Your task to perform on an android device: open wifi settings Image 0: 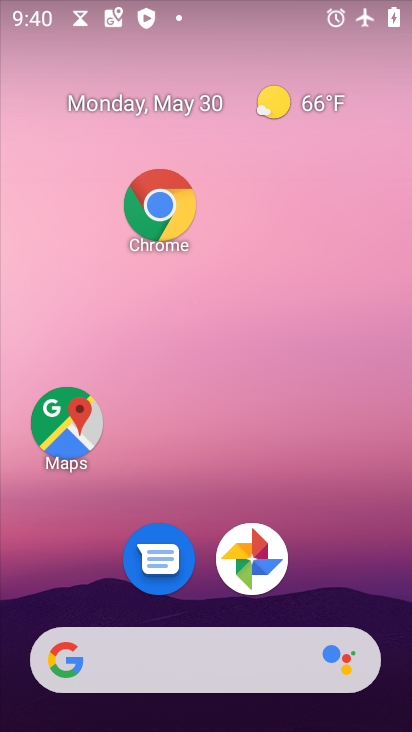
Step 0: click (217, 313)
Your task to perform on an android device: open wifi settings Image 1: 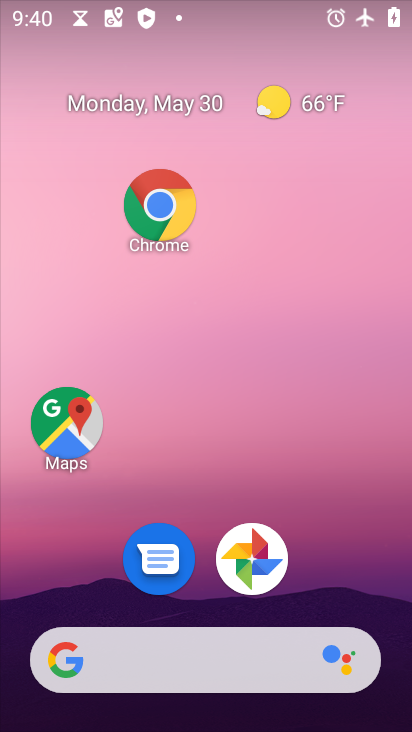
Step 1: drag from (206, 648) to (203, 300)
Your task to perform on an android device: open wifi settings Image 2: 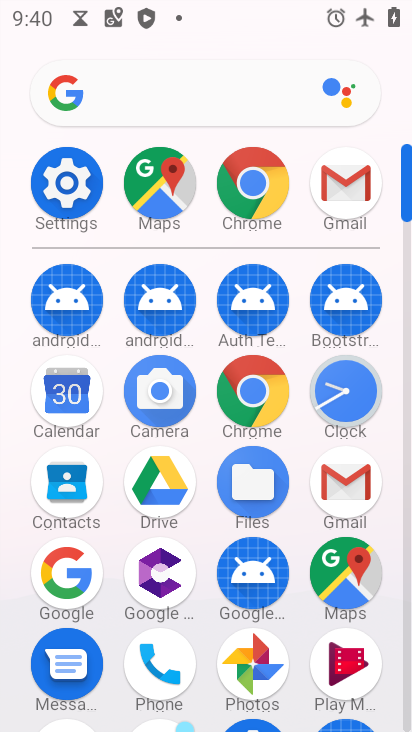
Step 2: click (70, 179)
Your task to perform on an android device: open wifi settings Image 3: 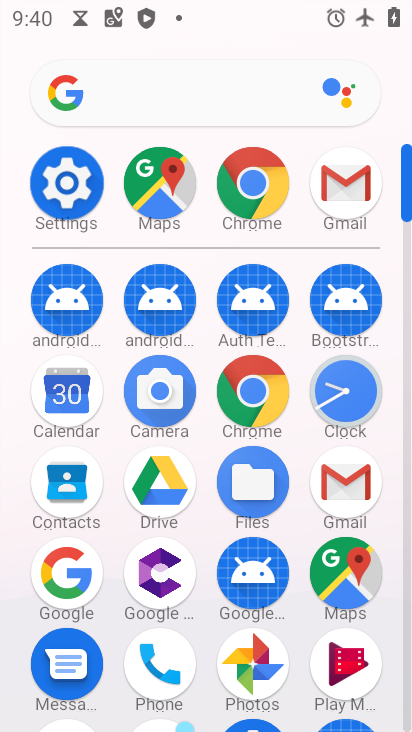
Step 3: click (70, 179)
Your task to perform on an android device: open wifi settings Image 4: 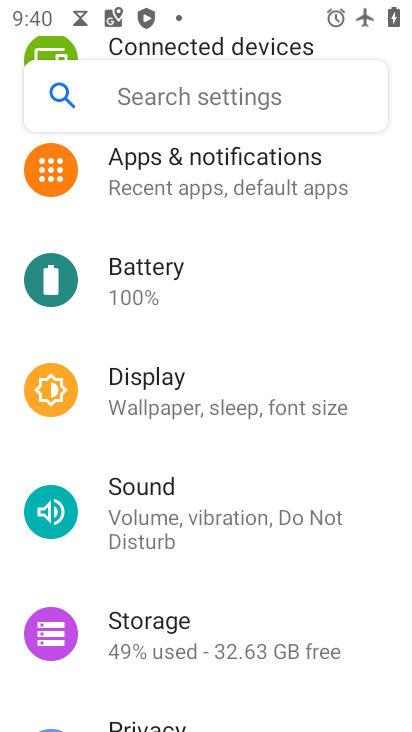
Step 4: drag from (147, 156) to (224, 576)
Your task to perform on an android device: open wifi settings Image 5: 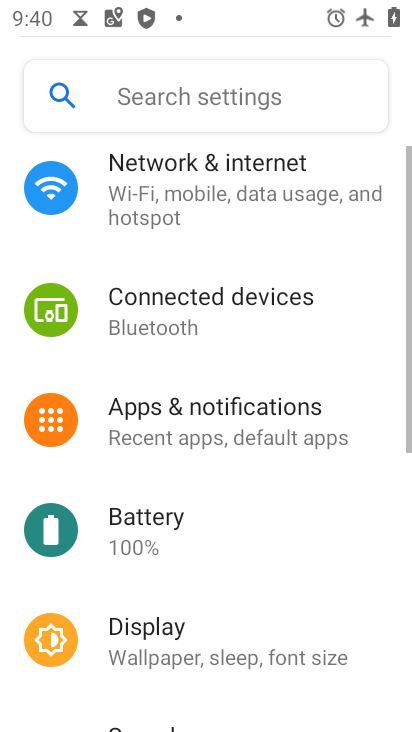
Step 5: drag from (160, 226) to (234, 599)
Your task to perform on an android device: open wifi settings Image 6: 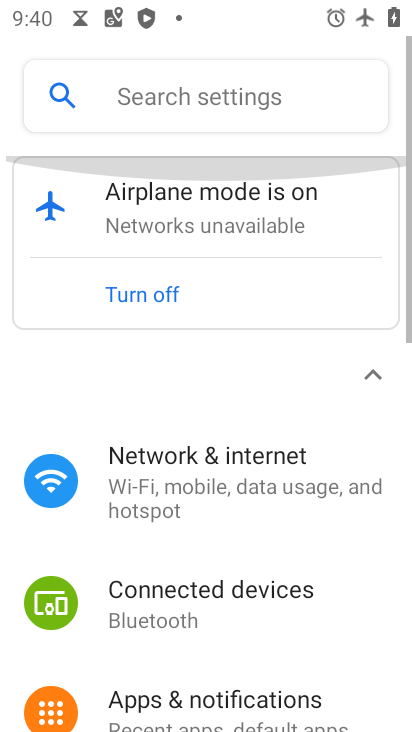
Step 6: drag from (161, 249) to (201, 507)
Your task to perform on an android device: open wifi settings Image 7: 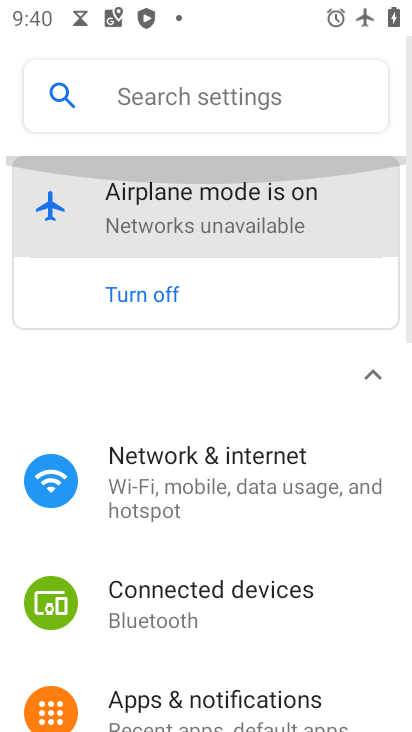
Step 7: drag from (184, 306) to (227, 578)
Your task to perform on an android device: open wifi settings Image 8: 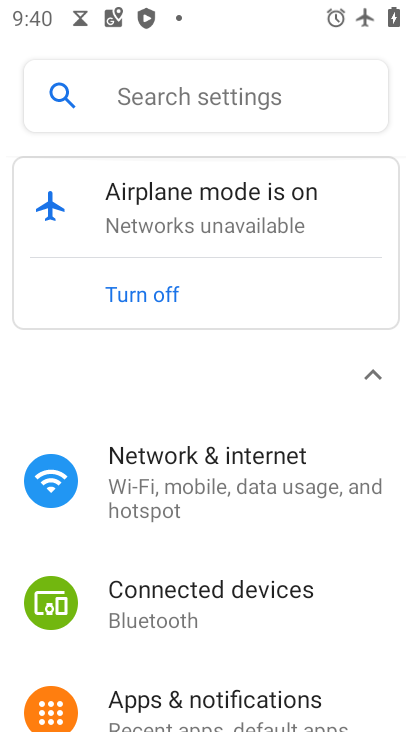
Step 8: drag from (203, 522) to (197, 224)
Your task to perform on an android device: open wifi settings Image 9: 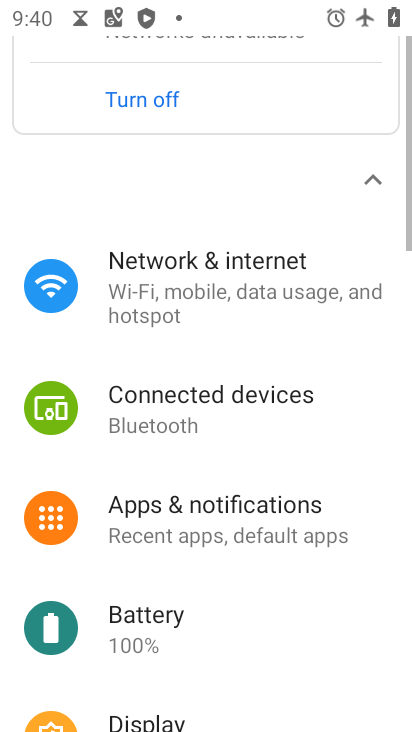
Step 9: drag from (184, 464) to (202, 146)
Your task to perform on an android device: open wifi settings Image 10: 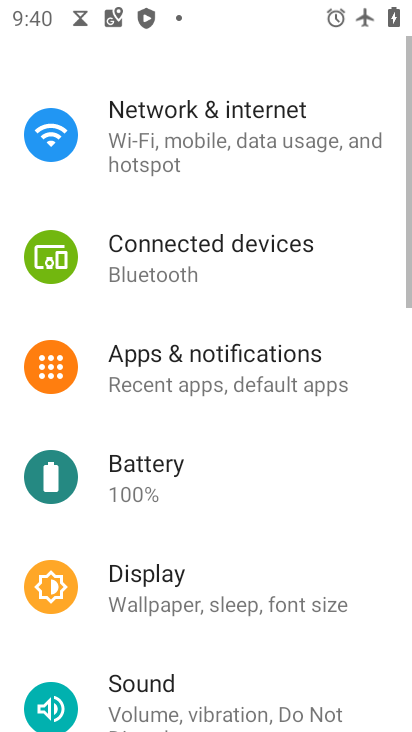
Step 10: drag from (172, 504) to (172, 145)
Your task to perform on an android device: open wifi settings Image 11: 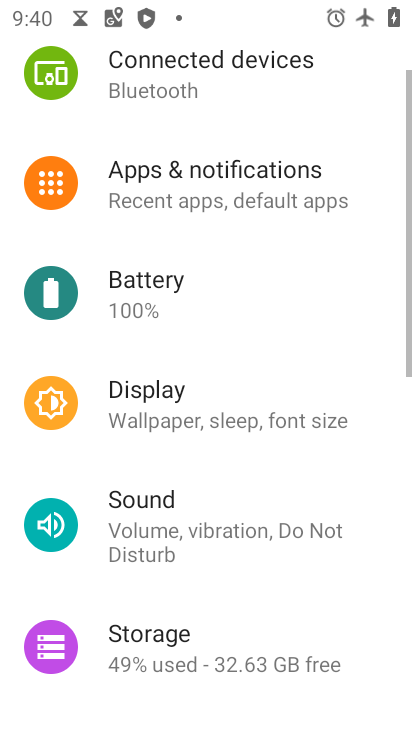
Step 11: drag from (119, 526) to (173, 135)
Your task to perform on an android device: open wifi settings Image 12: 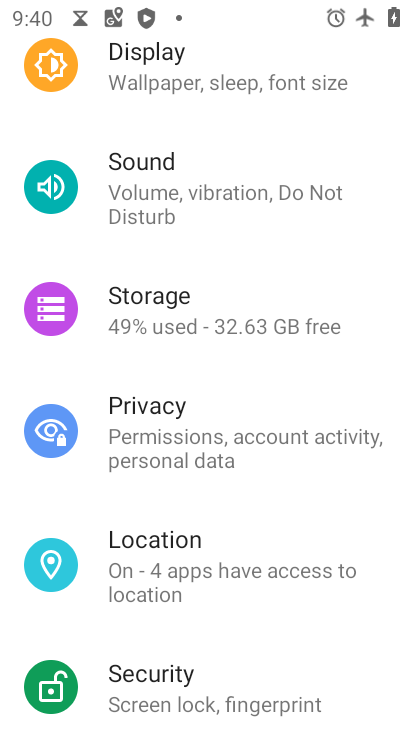
Step 12: drag from (166, 176) to (217, 439)
Your task to perform on an android device: open wifi settings Image 13: 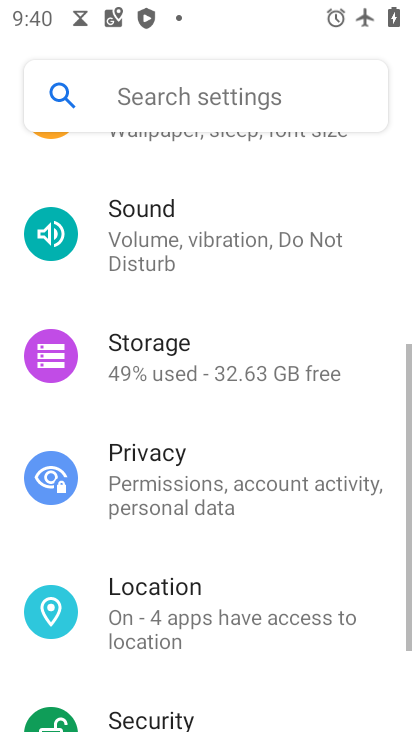
Step 13: drag from (193, 181) to (224, 431)
Your task to perform on an android device: open wifi settings Image 14: 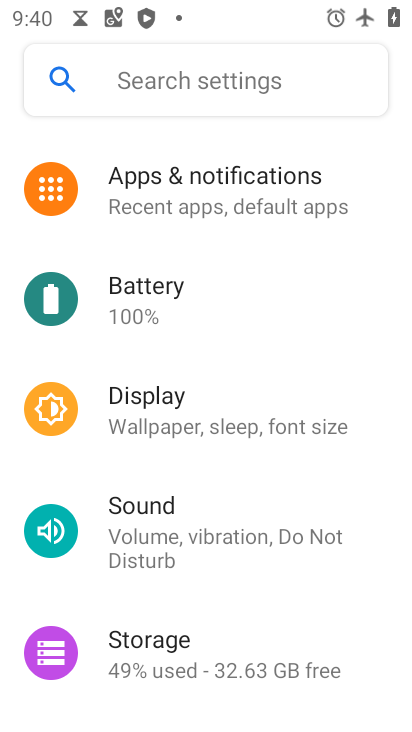
Step 14: drag from (184, 249) to (217, 558)
Your task to perform on an android device: open wifi settings Image 15: 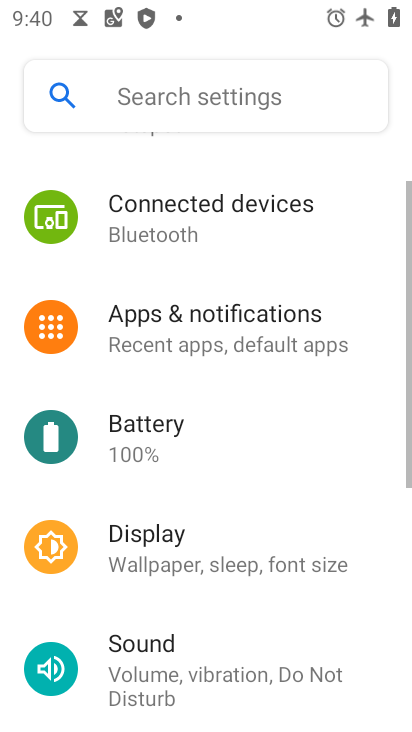
Step 15: click (267, 617)
Your task to perform on an android device: open wifi settings Image 16: 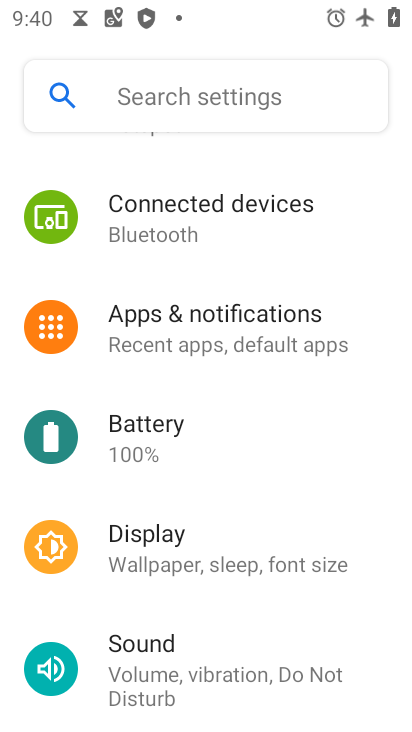
Step 16: click (286, 601)
Your task to perform on an android device: open wifi settings Image 17: 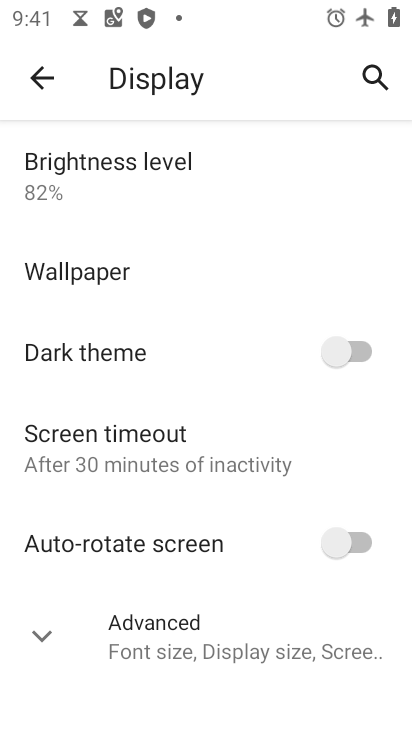
Step 17: click (35, 83)
Your task to perform on an android device: open wifi settings Image 18: 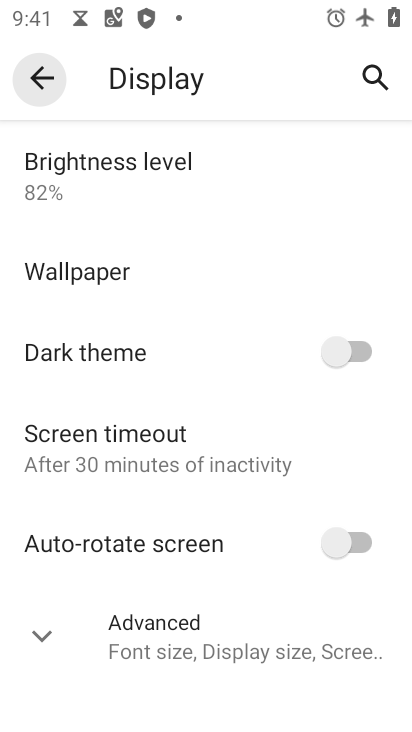
Step 18: click (36, 83)
Your task to perform on an android device: open wifi settings Image 19: 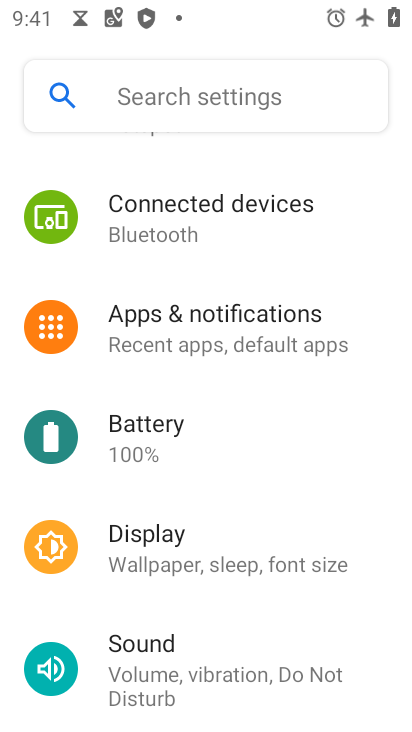
Step 19: drag from (176, 232) to (268, 498)
Your task to perform on an android device: open wifi settings Image 20: 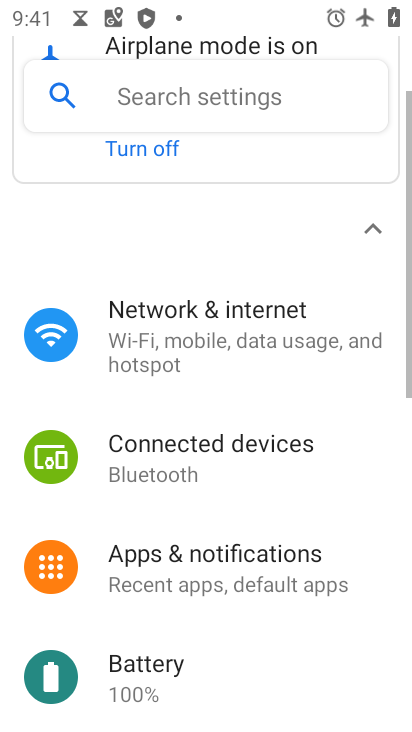
Step 20: drag from (262, 289) to (296, 523)
Your task to perform on an android device: open wifi settings Image 21: 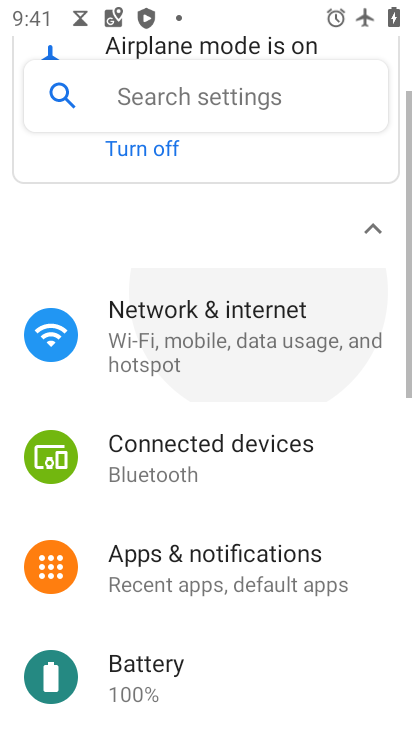
Step 21: drag from (241, 298) to (241, 480)
Your task to perform on an android device: open wifi settings Image 22: 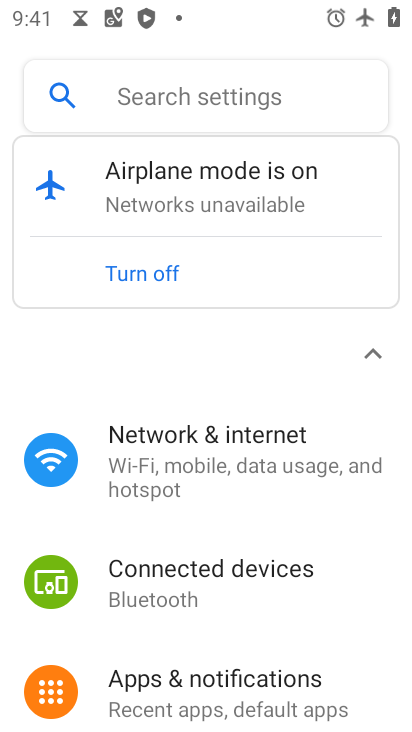
Step 22: click (186, 436)
Your task to perform on an android device: open wifi settings Image 23: 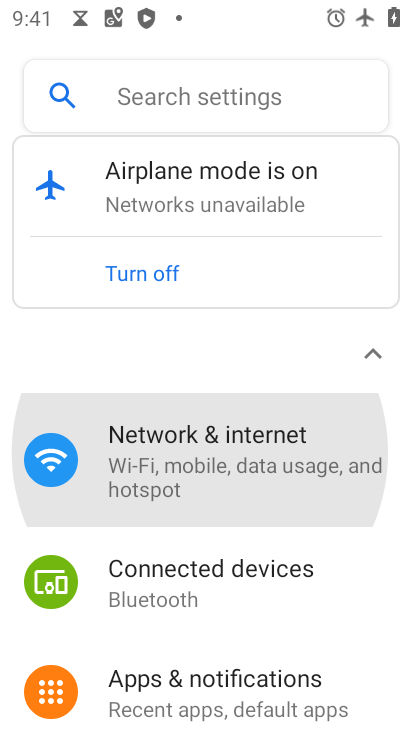
Step 23: click (185, 436)
Your task to perform on an android device: open wifi settings Image 24: 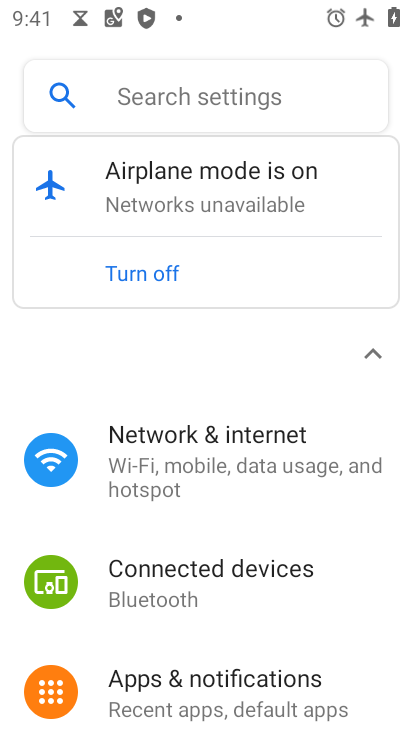
Step 24: click (186, 439)
Your task to perform on an android device: open wifi settings Image 25: 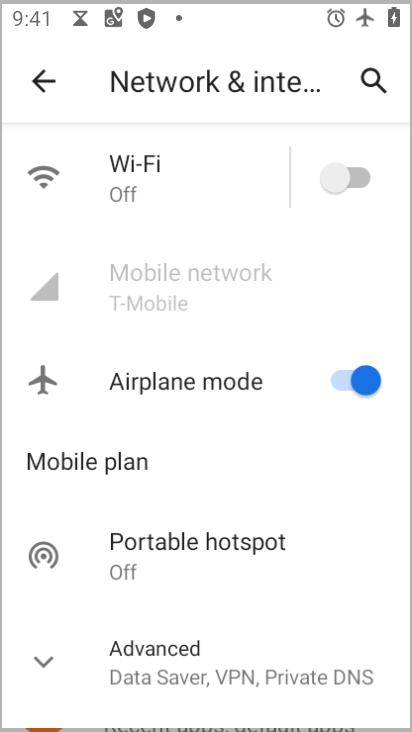
Step 25: click (187, 440)
Your task to perform on an android device: open wifi settings Image 26: 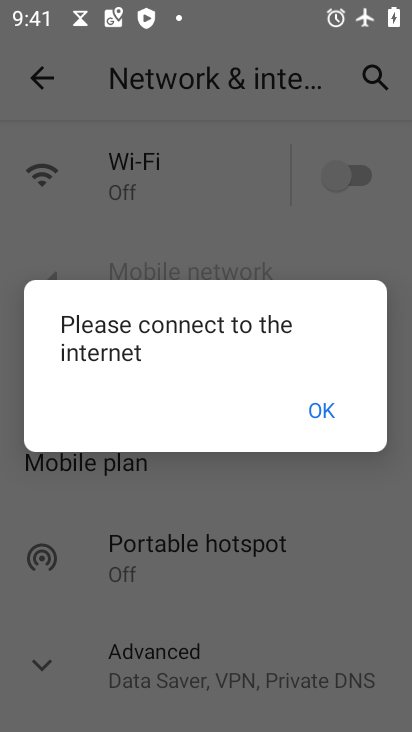
Step 26: click (325, 402)
Your task to perform on an android device: open wifi settings Image 27: 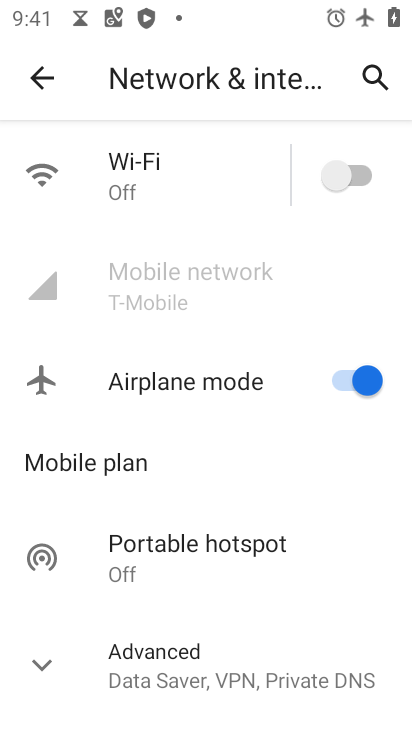
Step 27: task complete